Your task to perform on an android device: Go to Wikipedia Image 0: 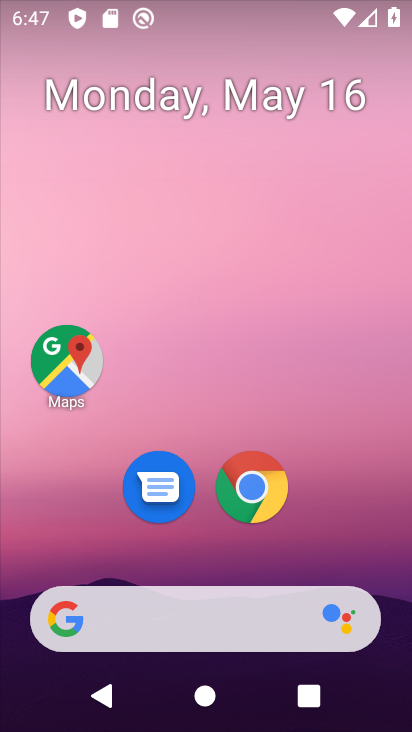
Step 0: click (283, 496)
Your task to perform on an android device: Go to Wikipedia Image 1: 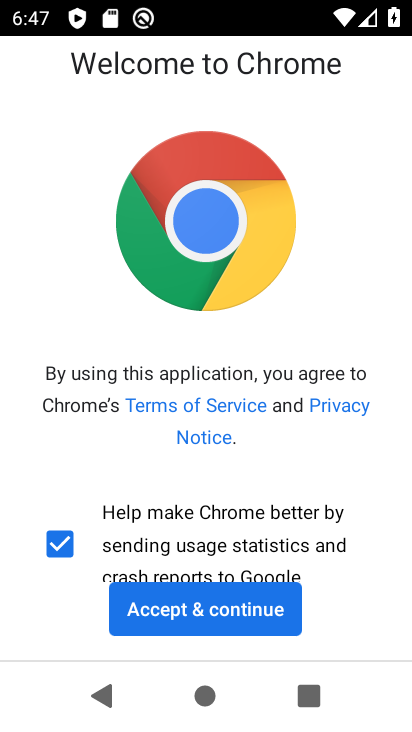
Step 1: click (160, 627)
Your task to perform on an android device: Go to Wikipedia Image 2: 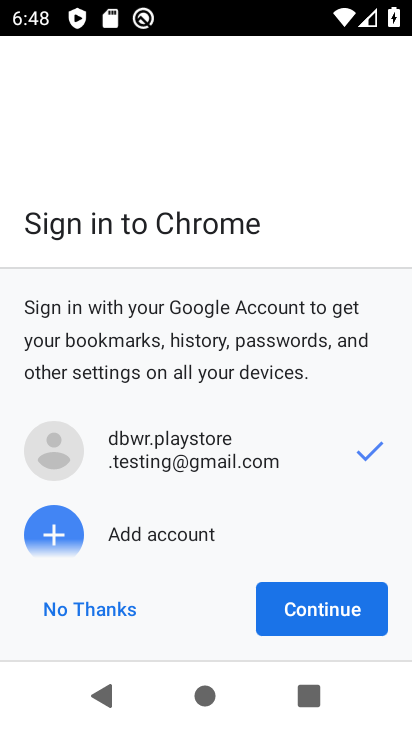
Step 2: click (275, 605)
Your task to perform on an android device: Go to Wikipedia Image 3: 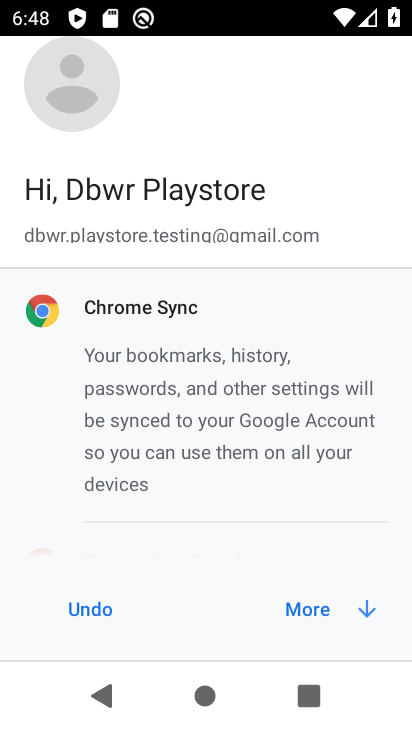
Step 3: click (304, 604)
Your task to perform on an android device: Go to Wikipedia Image 4: 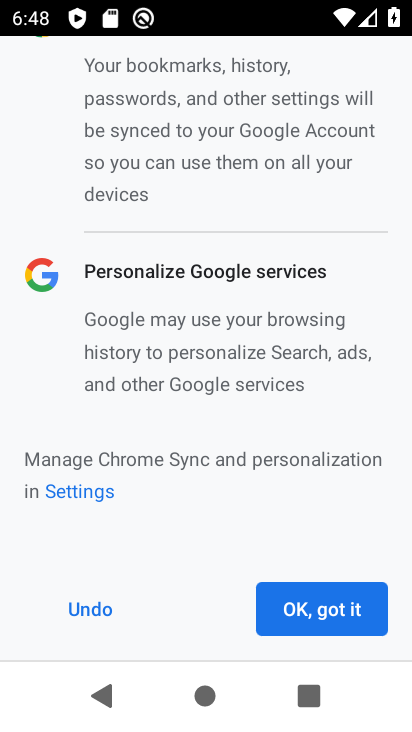
Step 4: click (304, 604)
Your task to perform on an android device: Go to Wikipedia Image 5: 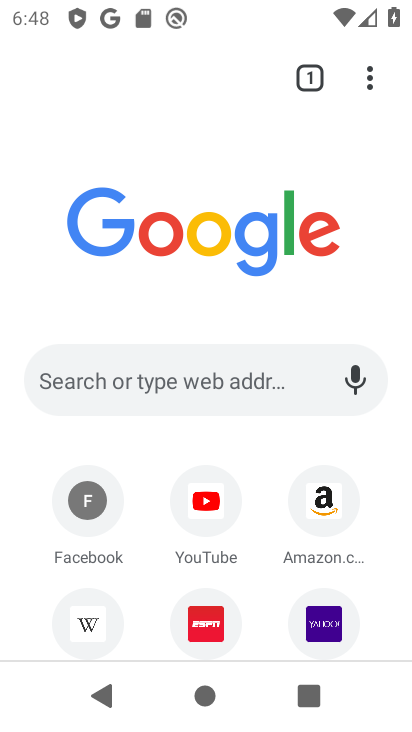
Step 5: click (99, 620)
Your task to perform on an android device: Go to Wikipedia Image 6: 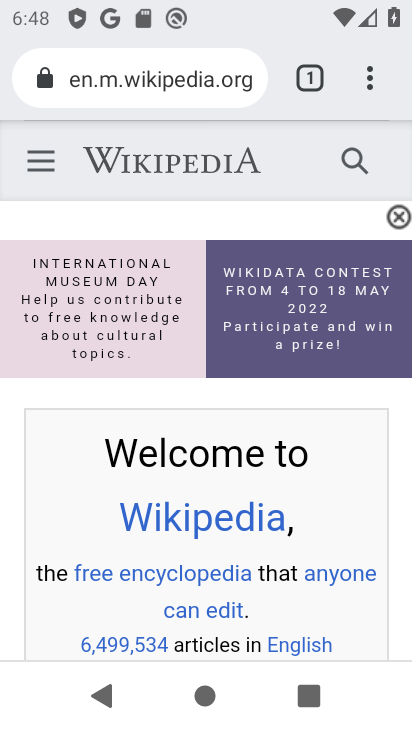
Step 6: task complete